Your task to perform on an android device: turn on javascript in the chrome app Image 0: 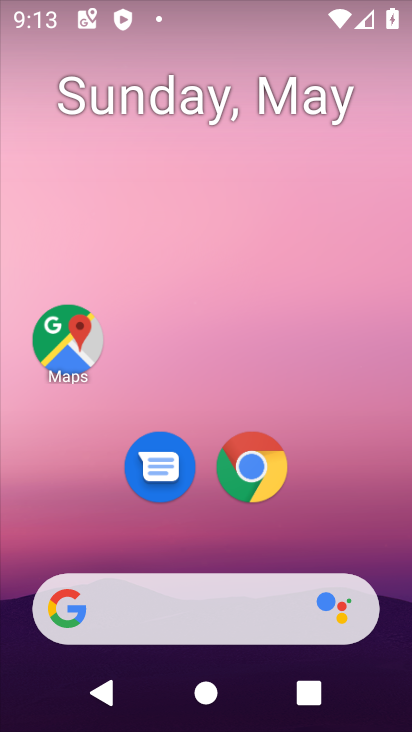
Step 0: click (275, 468)
Your task to perform on an android device: turn on javascript in the chrome app Image 1: 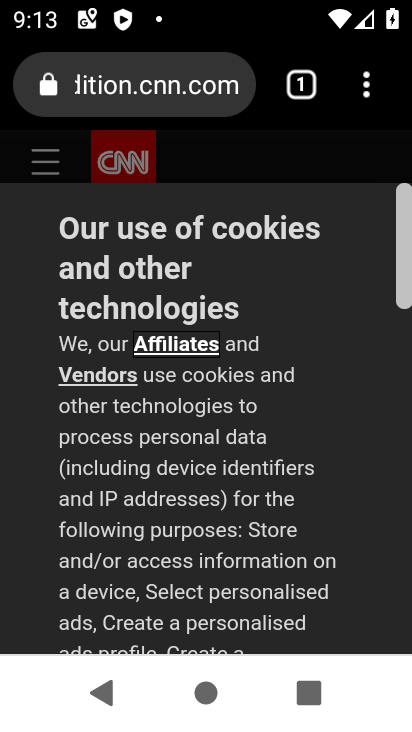
Step 1: click (387, 81)
Your task to perform on an android device: turn on javascript in the chrome app Image 2: 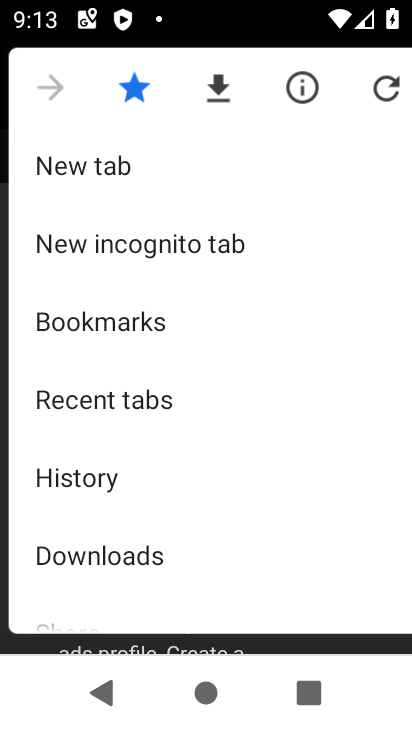
Step 2: drag from (292, 497) to (224, 173)
Your task to perform on an android device: turn on javascript in the chrome app Image 3: 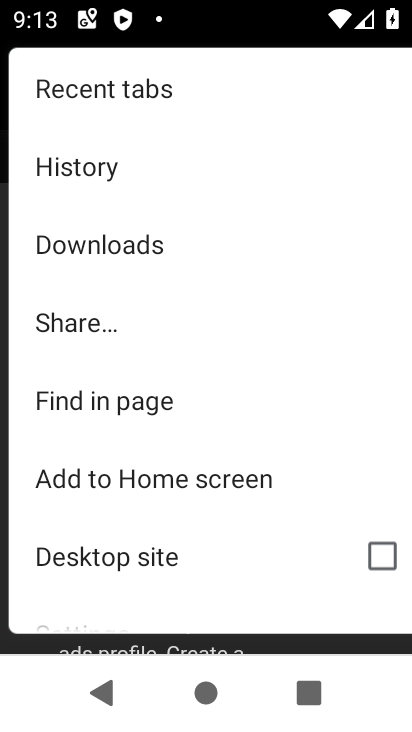
Step 3: drag from (236, 550) to (151, 204)
Your task to perform on an android device: turn on javascript in the chrome app Image 4: 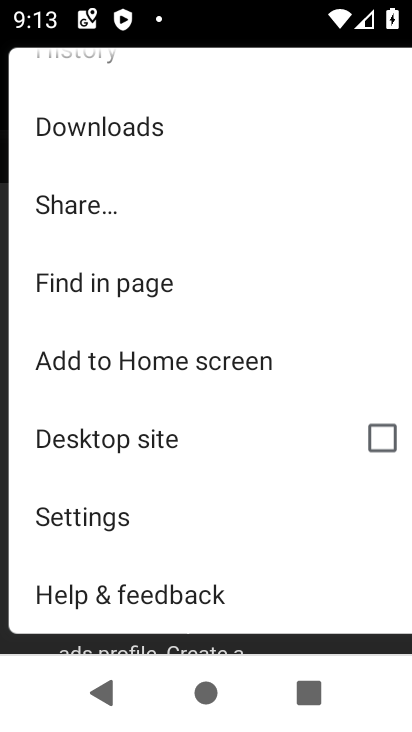
Step 4: click (171, 523)
Your task to perform on an android device: turn on javascript in the chrome app Image 5: 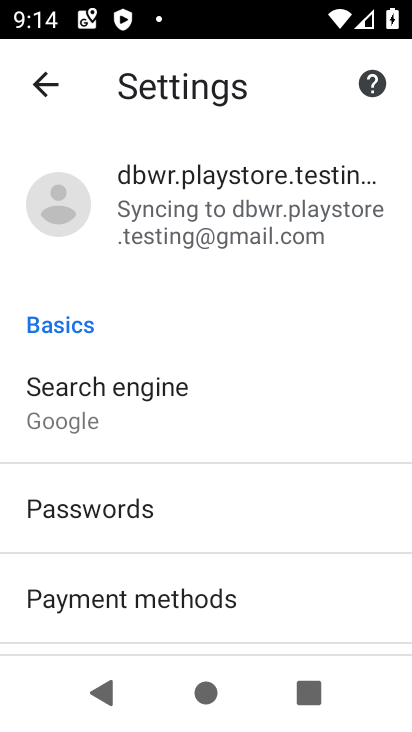
Step 5: drag from (192, 639) to (183, 108)
Your task to perform on an android device: turn on javascript in the chrome app Image 6: 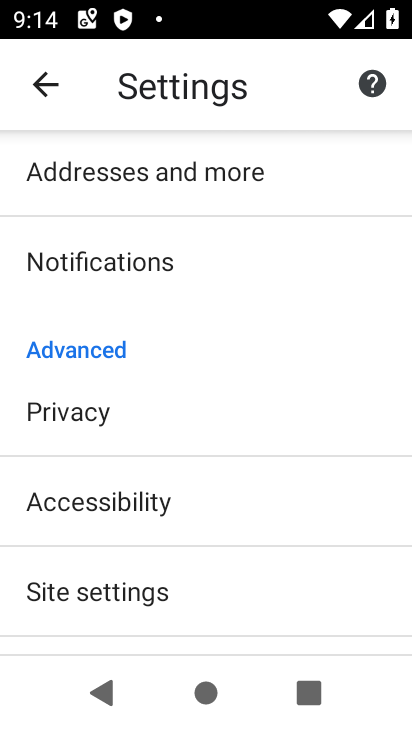
Step 6: click (199, 585)
Your task to perform on an android device: turn on javascript in the chrome app Image 7: 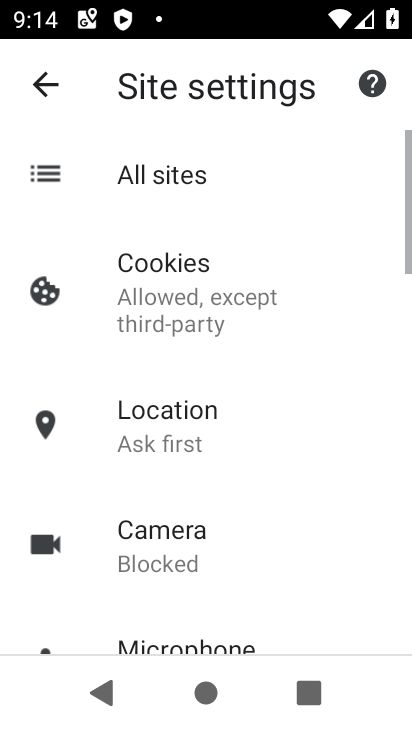
Step 7: drag from (199, 585) to (171, 207)
Your task to perform on an android device: turn on javascript in the chrome app Image 8: 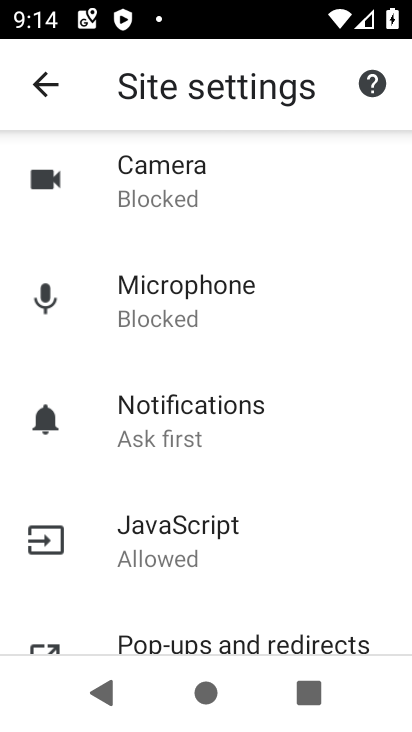
Step 8: click (193, 563)
Your task to perform on an android device: turn on javascript in the chrome app Image 9: 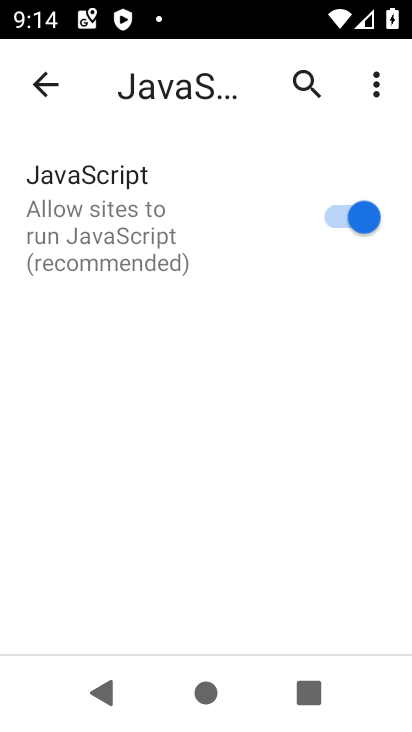
Step 9: task complete